Your task to perform on an android device: What is the recent news? Image 0: 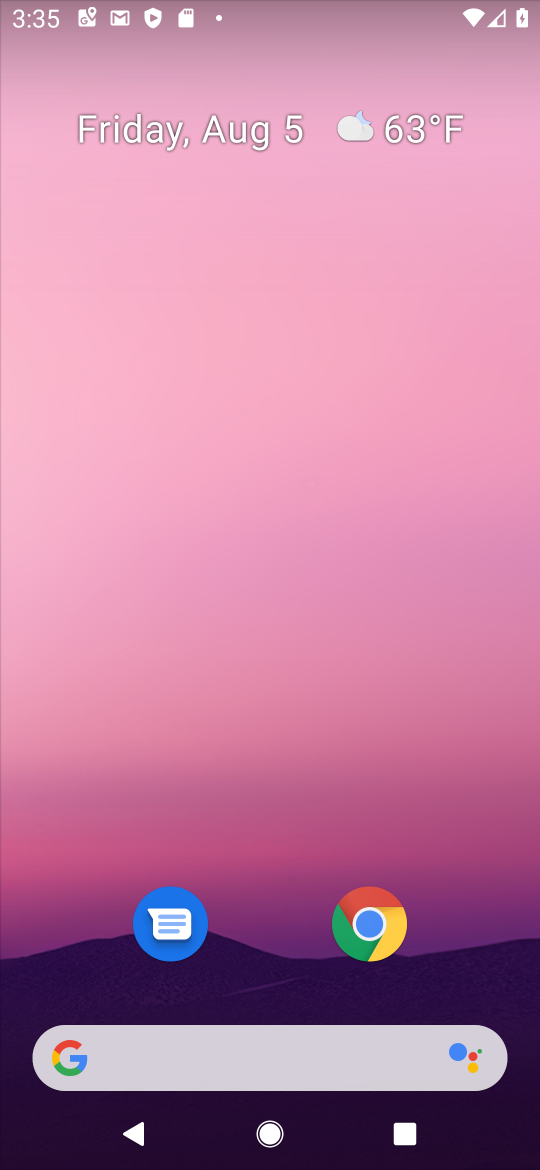
Step 0: drag from (255, 805) to (334, 21)
Your task to perform on an android device: What is the recent news? Image 1: 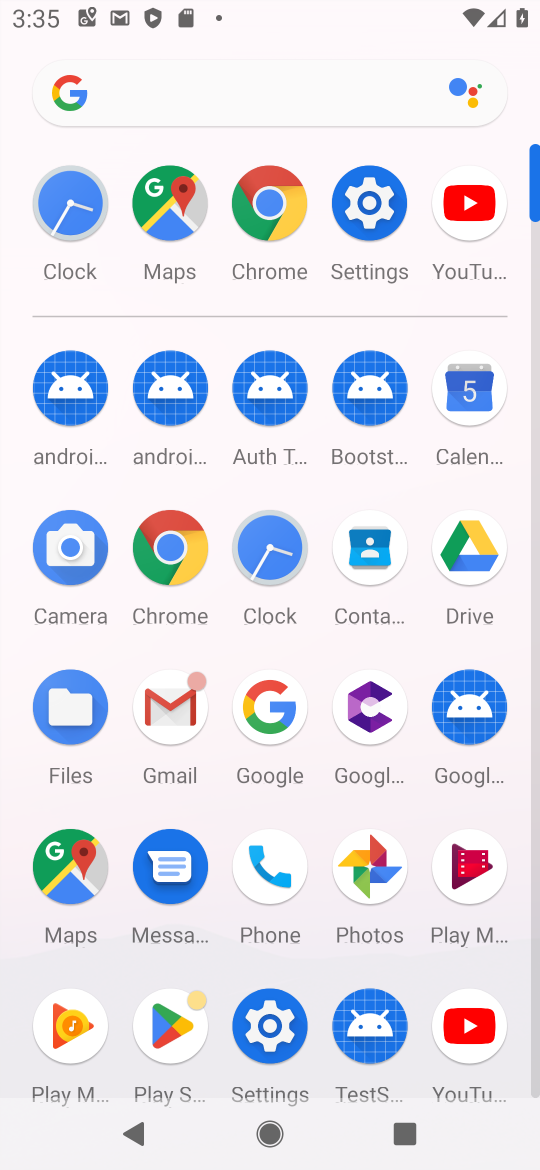
Step 1: click (285, 721)
Your task to perform on an android device: What is the recent news? Image 2: 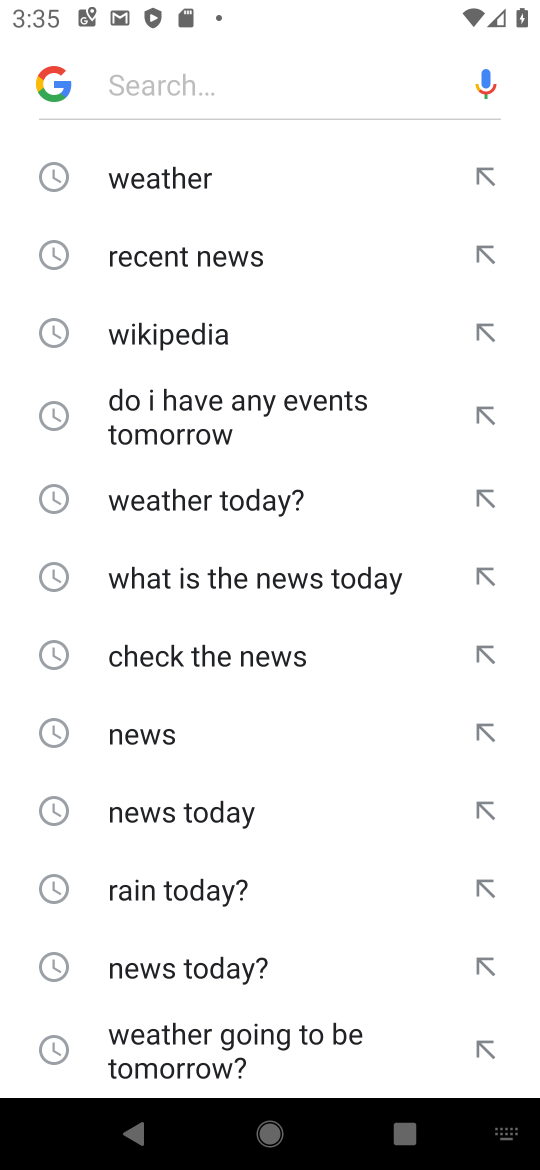
Step 2: click (231, 265)
Your task to perform on an android device: What is the recent news? Image 3: 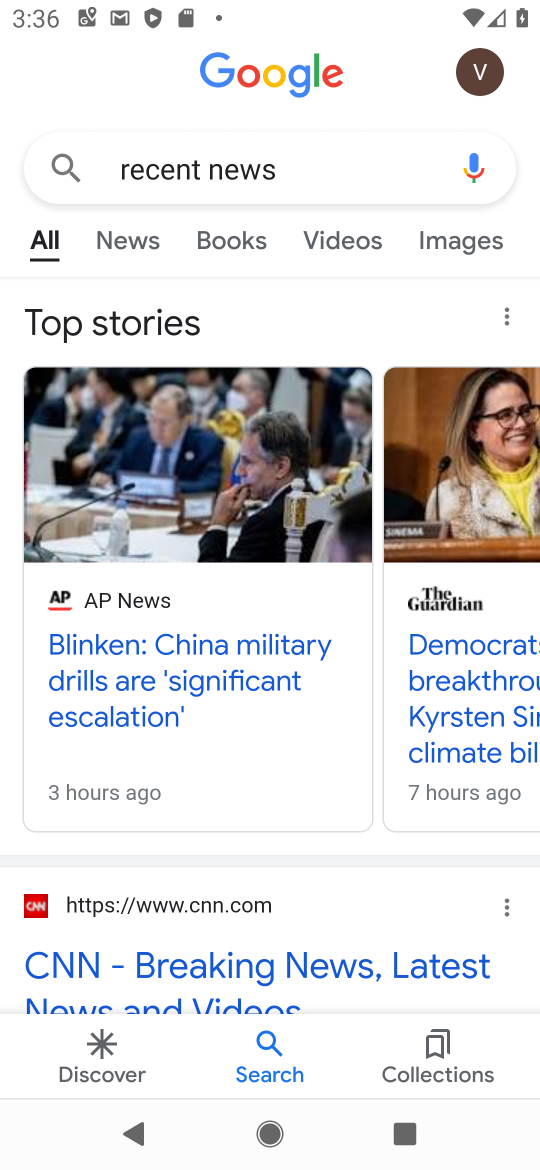
Step 3: task complete